Your task to perform on an android device: turn off notifications settings in the gmail app Image 0: 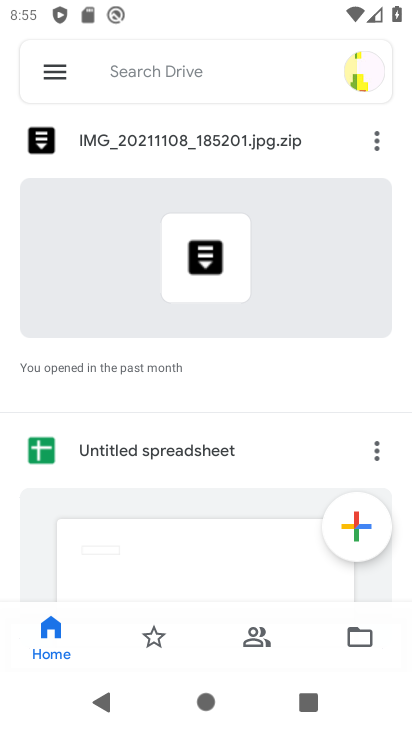
Step 0: press home button
Your task to perform on an android device: turn off notifications settings in the gmail app Image 1: 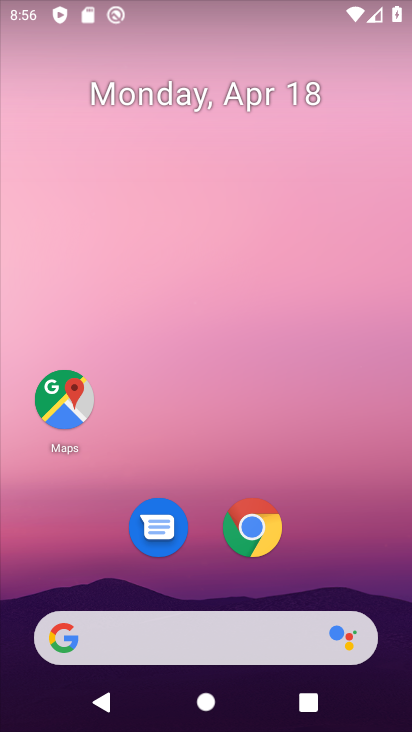
Step 1: click (349, 193)
Your task to perform on an android device: turn off notifications settings in the gmail app Image 2: 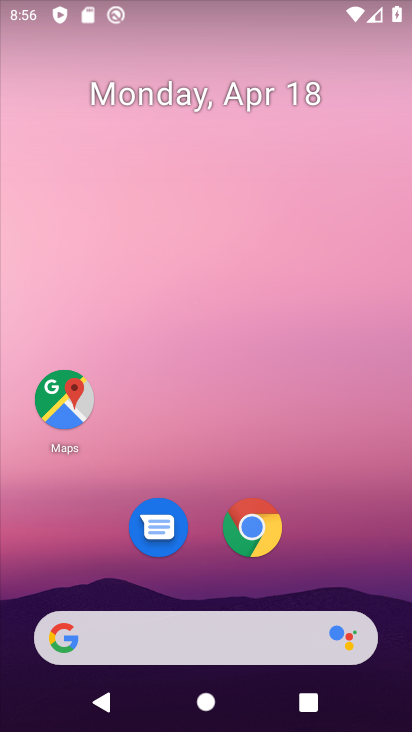
Step 2: drag from (360, 567) to (270, 61)
Your task to perform on an android device: turn off notifications settings in the gmail app Image 3: 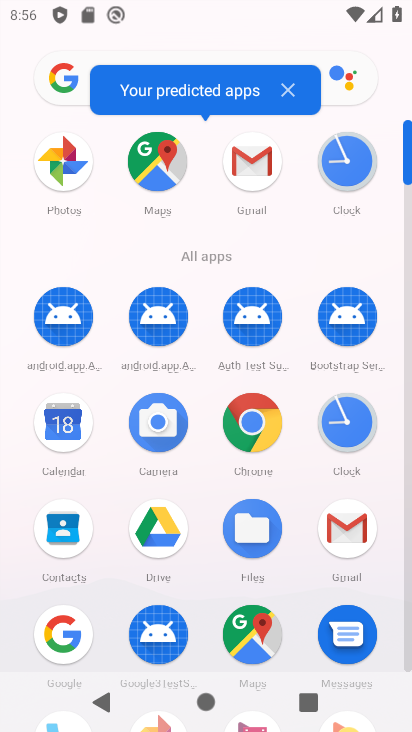
Step 3: click (248, 163)
Your task to perform on an android device: turn off notifications settings in the gmail app Image 4: 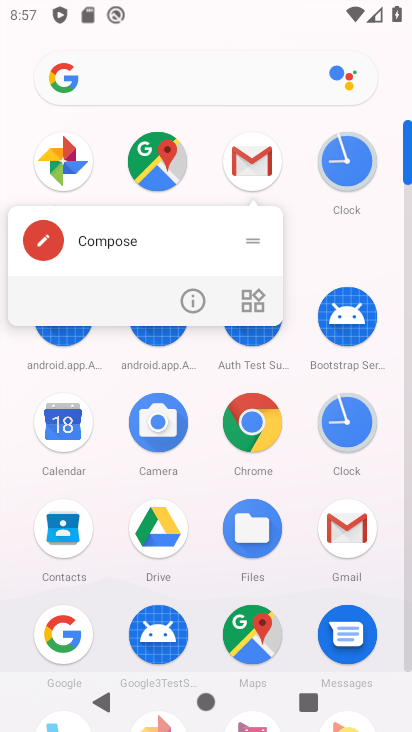
Step 4: click (259, 152)
Your task to perform on an android device: turn off notifications settings in the gmail app Image 5: 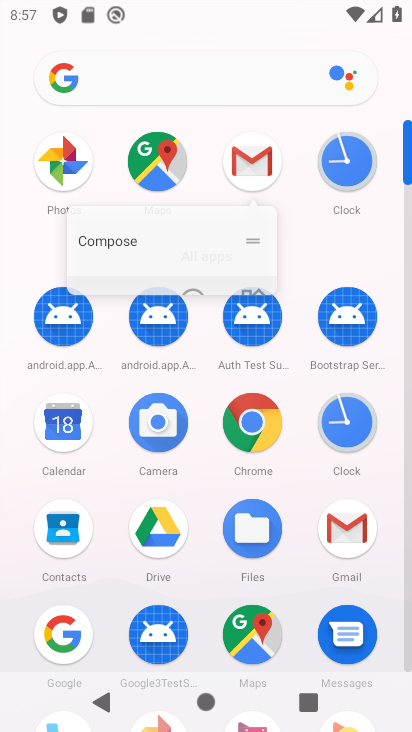
Step 5: click (259, 152)
Your task to perform on an android device: turn off notifications settings in the gmail app Image 6: 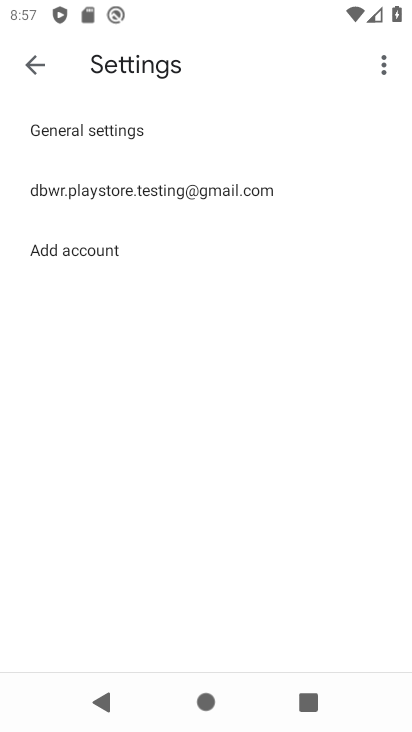
Step 6: click (69, 131)
Your task to perform on an android device: turn off notifications settings in the gmail app Image 7: 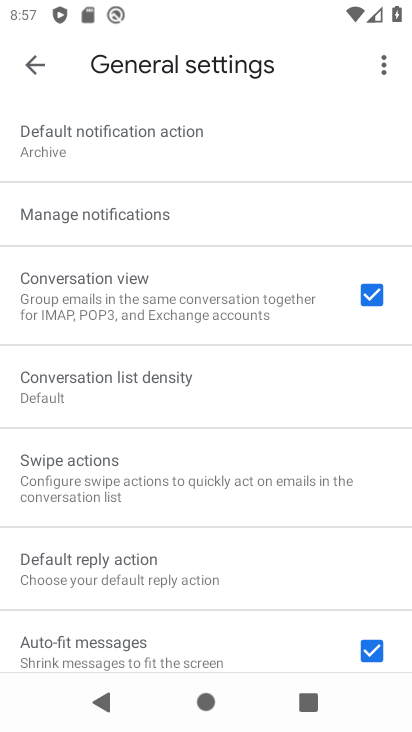
Step 7: click (82, 218)
Your task to perform on an android device: turn off notifications settings in the gmail app Image 8: 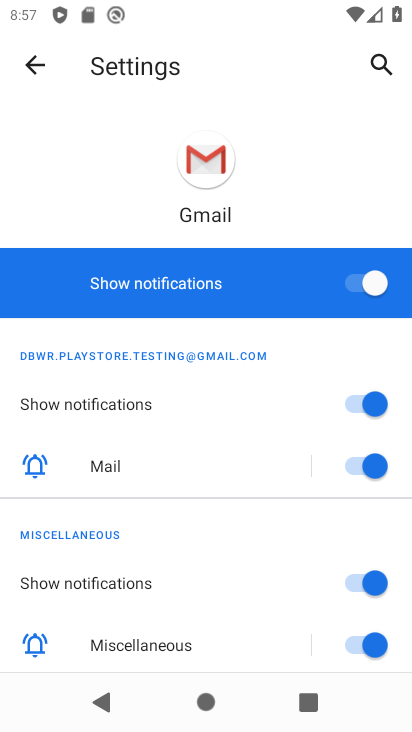
Step 8: click (351, 282)
Your task to perform on an android device: turn off notifications settings in the gmail app Image 9: 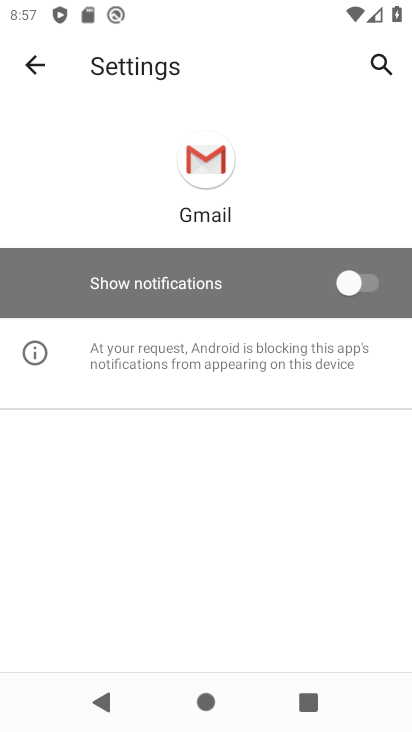
Step 9: task complete